Your task to perform on an android device: turn off wifi Image 0: 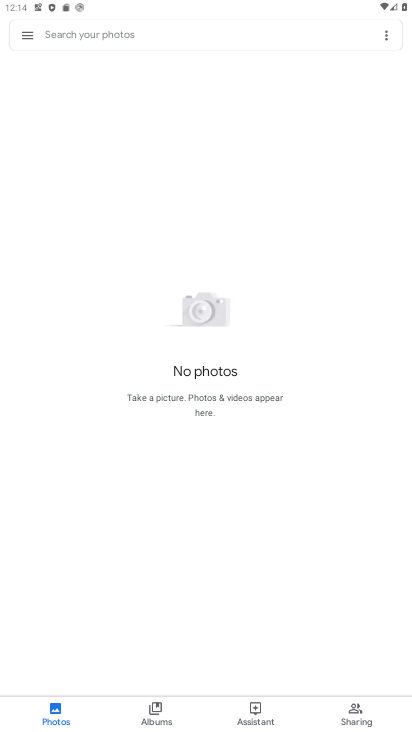
Step 0: press back button
Your task to perform on an android device: turn off wifi Image 1: 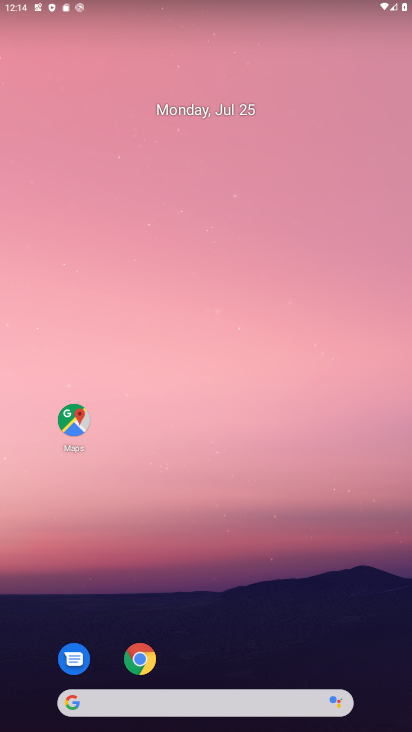
Step 1: drag from (140, 439) to (179, 245)
Your task to perform on an android device: turn off wifi Image 2: 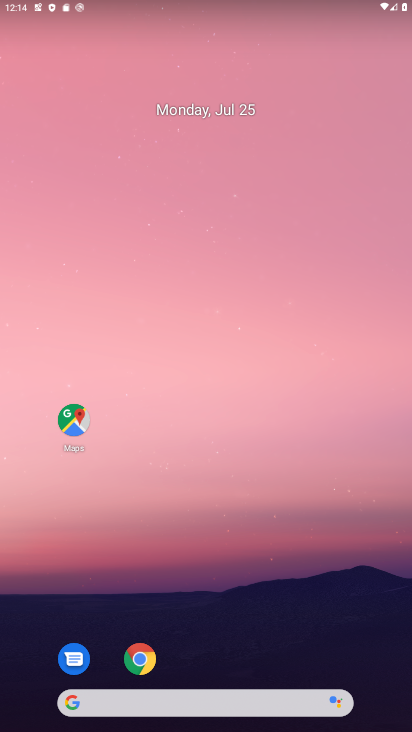
Step 2: drag from (44, 688) to (189, 262)
Your task to perform on an android device: turn off wifi Image 3: 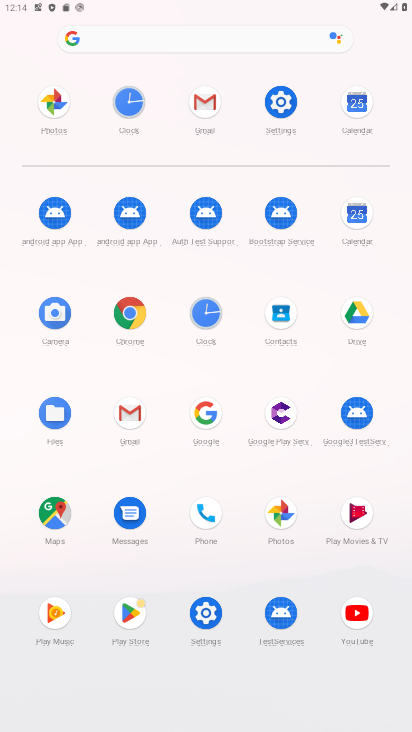
Step 3: click (208, 624)
Your task to perform on an android device: turn off wifi Image 4: 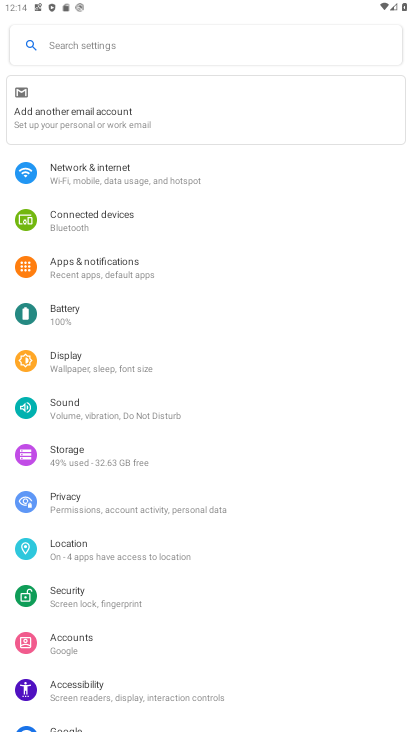
Step 4: click (108, 168)
Your task to perform on an android device: turn off wifi Image 5: 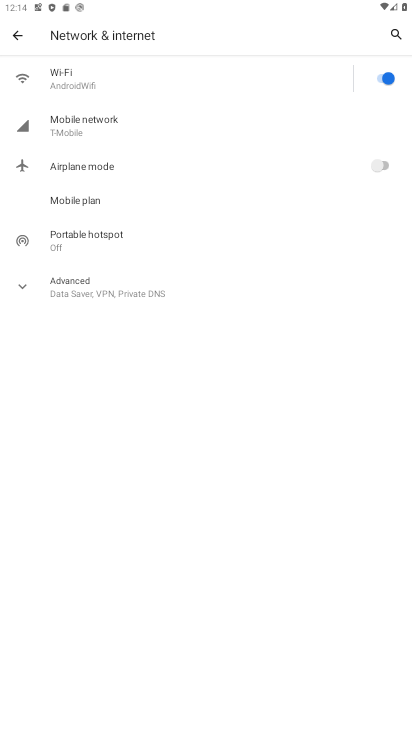
Step 5: click (392, 78)
Your task to perform on an android device: turn off wifi Image 6: 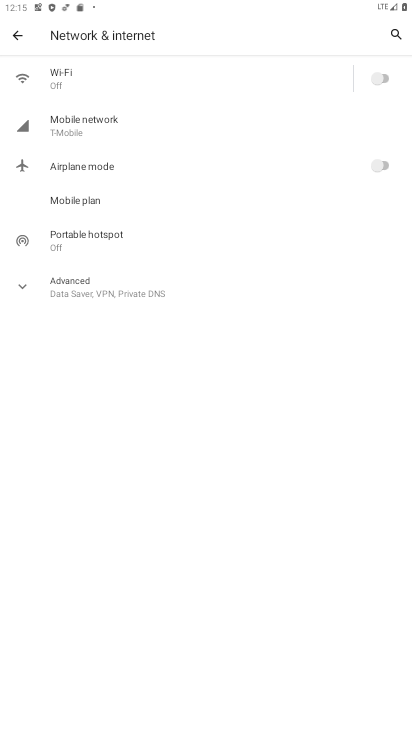
Step 6: task complete